Your task to perform on an android device: Show me popular videos on Youtube Image 0: 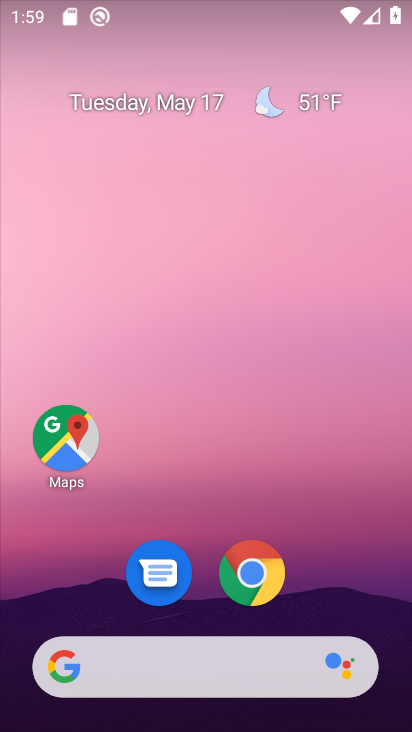
Step 0: drag from (229, 625) to (306, 32)
Your task to perform on an android device: Show me popular videos on Youtube Image 1: 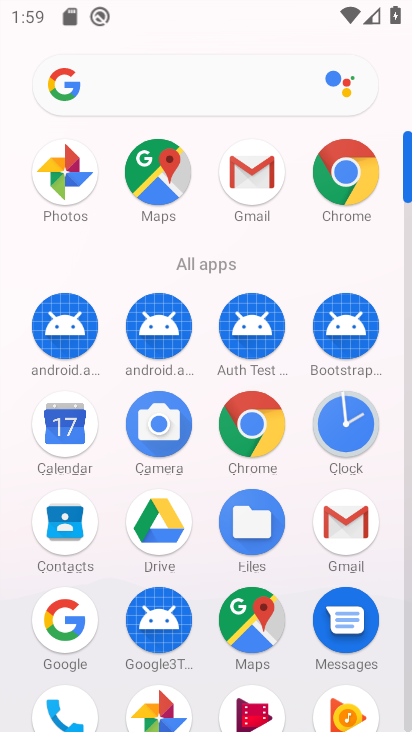
Step 1: drag from (205, 575) to (203, 34)
Your task to perform on an android device: Show me popular videos on Youtube Image 2: 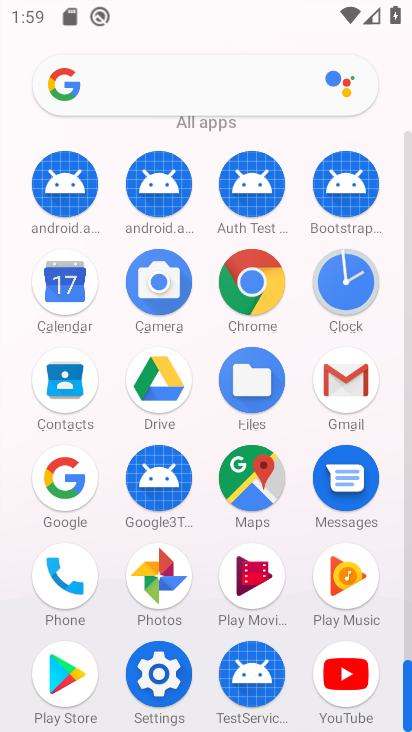
Step 2: click (347, 700)
Your task to perform on an android device: Show me popular videos on Youtube Image 3: 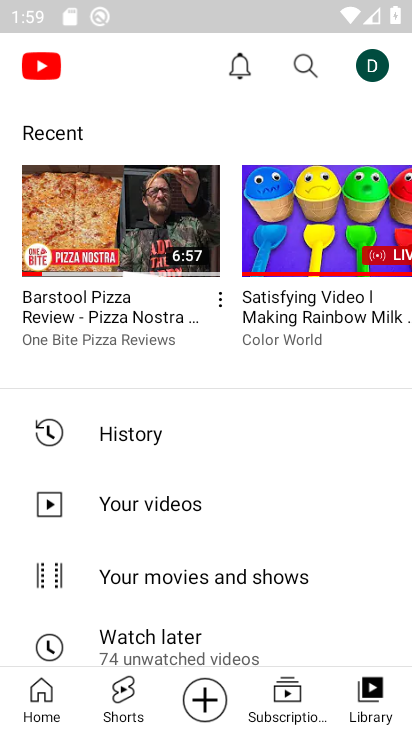
Step 3: click (120, 685)
Your task to perform on an android device: Show me popular videos on Youtube Image 4: 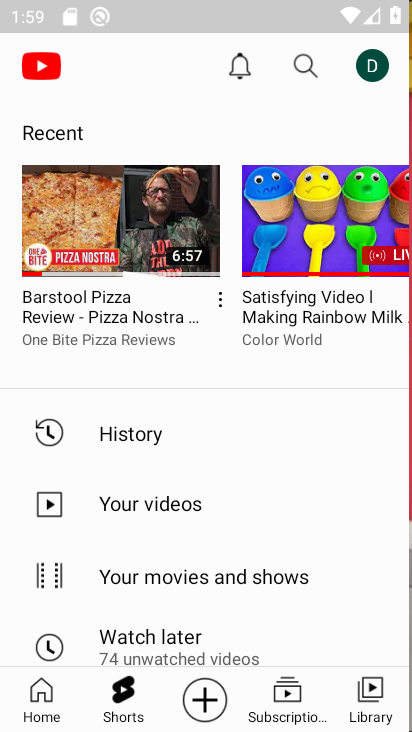
Step 4: click (46, 700)
Your task to perform on an android device: Show me popular videos on Youtube Image 5: 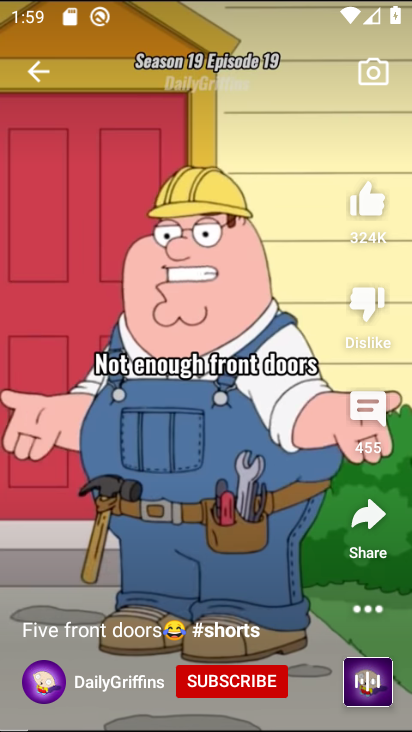
Step 5: click (40, 66)
Your task to perform on an android device: Show me popular videos on Youtube Image 6: 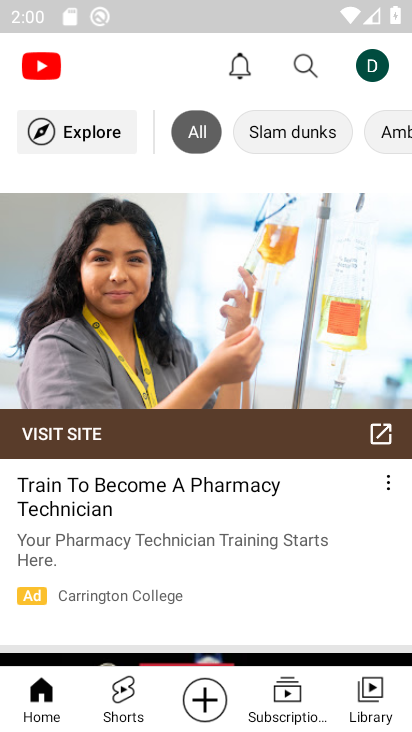
Step 6: drag from (307, 65) to (349, 65)
Your task to perform on an android device: Show me popular videos on Youtube Image 7: 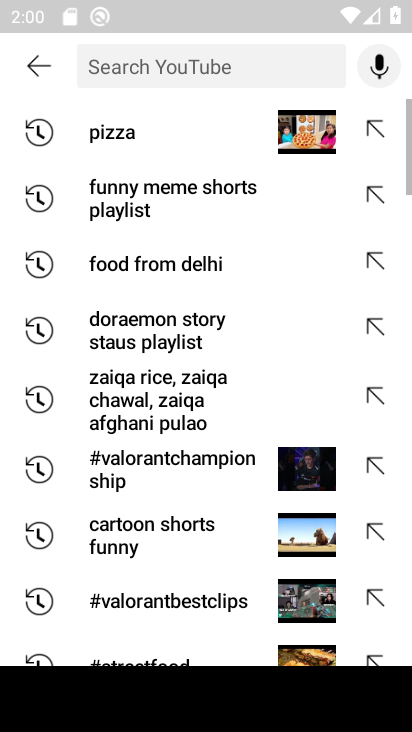
Step 7: click (19, 63)
Your task to perform on an android device: Show me popular videos on Youtube Image 8: 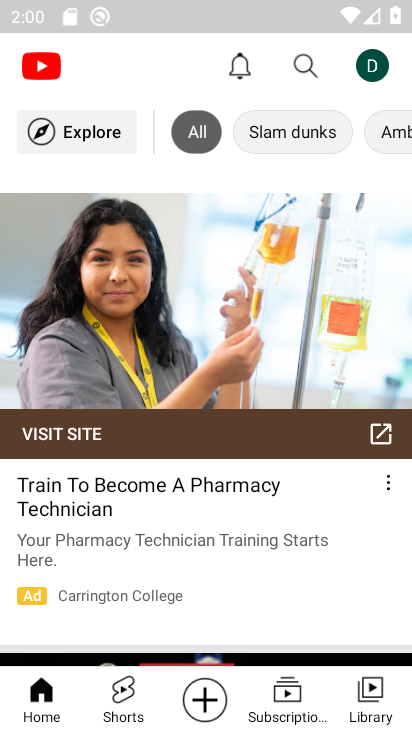
Step 8: click (58, 124)
Your task to perform on an android device: Show me popular videos on Youtube Image 9: 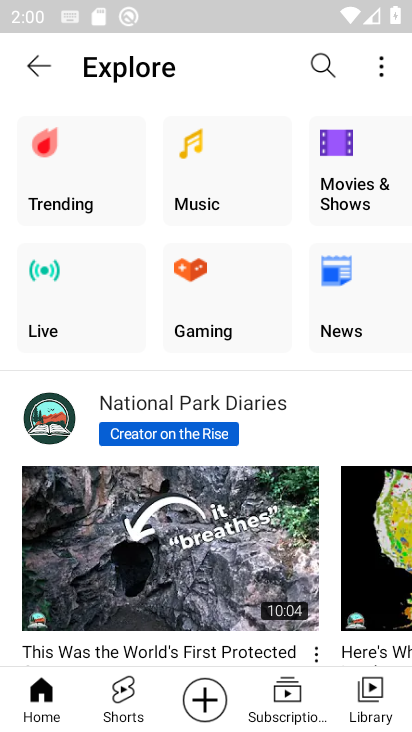
Step 9: task complete